Your task to perform on an android device: toggle airplane mode Image 0: 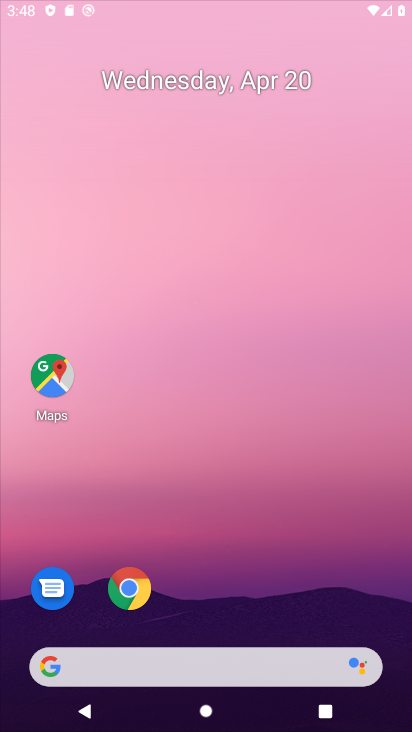
Step 0: drag from (188, 429) to (231, 113)
Your task to perform on an android device: toggle airplane mode Image 1: 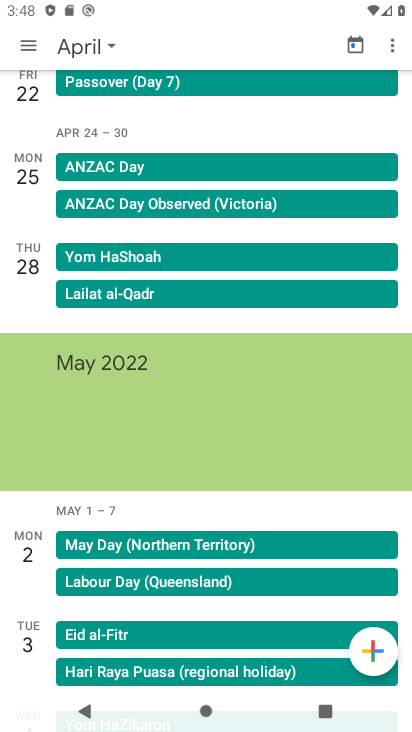
Step 1: press home button
Your task to perform on an android device: toggle airplane mode Image 2: 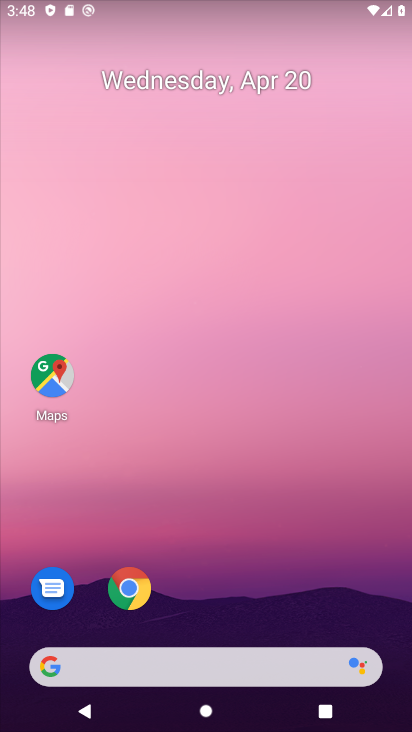
Step 2: drag from (218, 486) to (346, 11)
Your task to perform on an android device: toggle airplane mode Image 3: 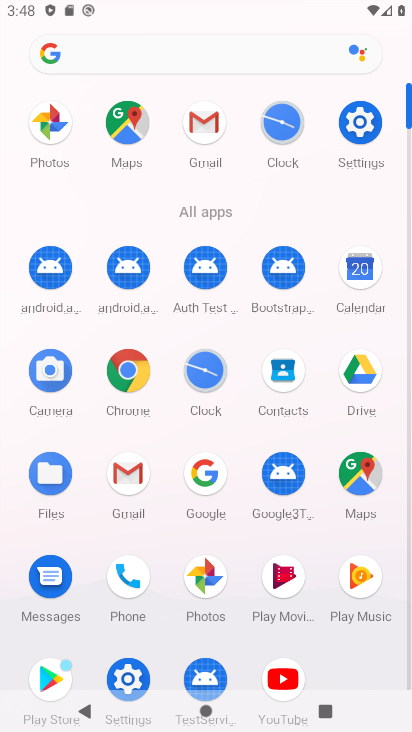
Step 3: click (357, 141)
Your task to perform on an android device: toggle airplane mode Image 4: 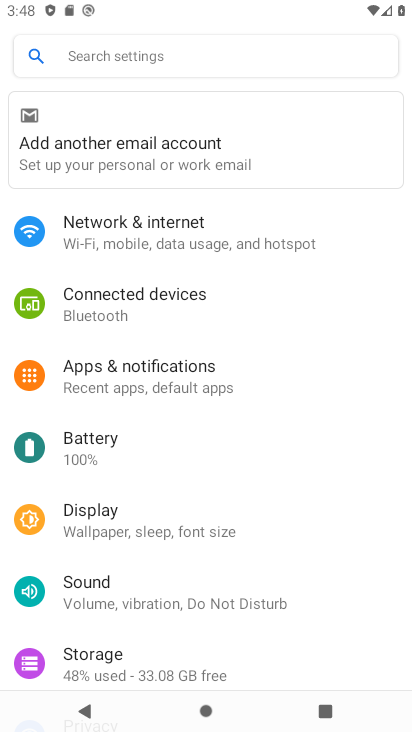
Step 4: click (177, 241)
Your task to perform on an android device: toggle airplane mode Image 5: 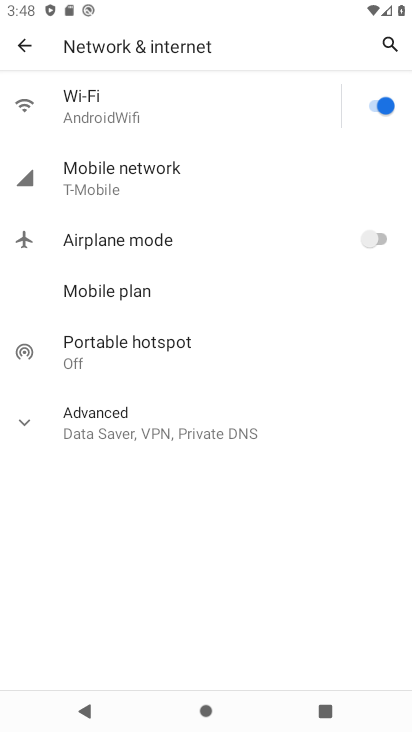
Step 5: click (369, 239)
Your task to perform on an android device: toggle airplane mode Image 6: 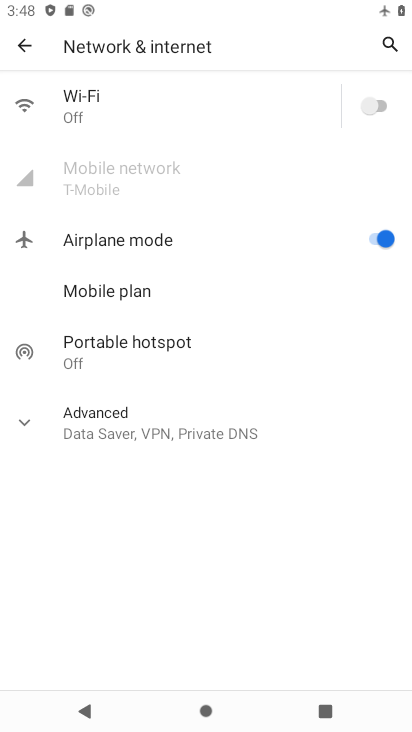
Step 6: task complete